Your task to perform on an android device: change text size in settings app Image 0: 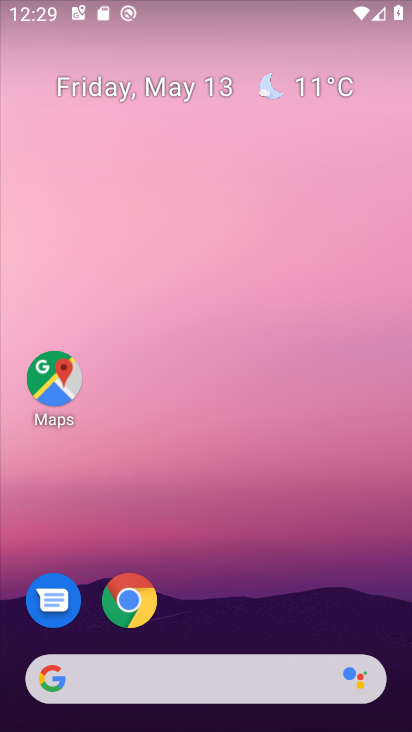
Step 0: drag from (210, 568) to (272, 50)
Your task to perform on an android device: change text size in settings app Image 1: 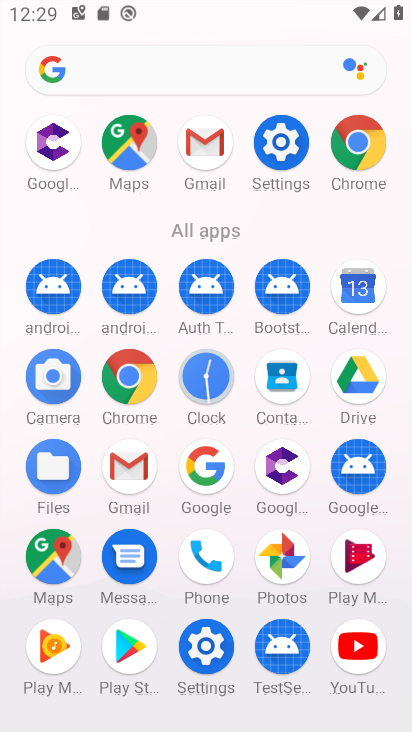
Step 1: click (280, 140)
Your task to perform on an android device: change text size in settings app Image 2: 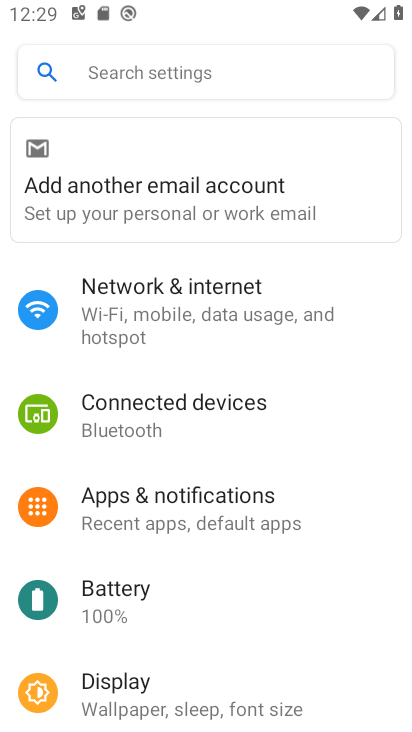
Step 2: click (167, 683)
Your task to perform on an android device: change text size in settings app Image 3: 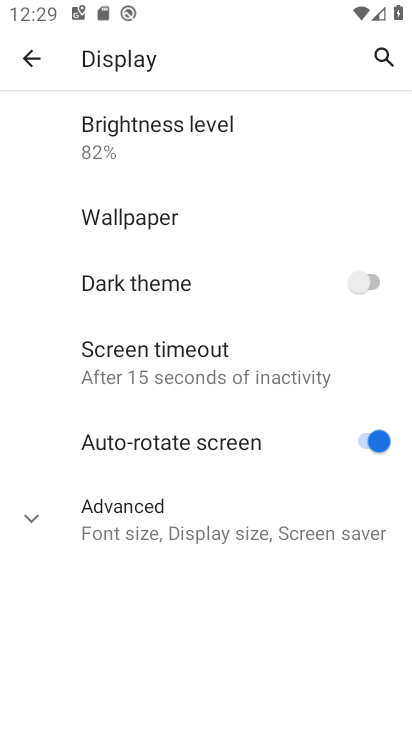
Step 3: click (187, 533)
Your task to perform on an android device: change text size in settings app Image 4: 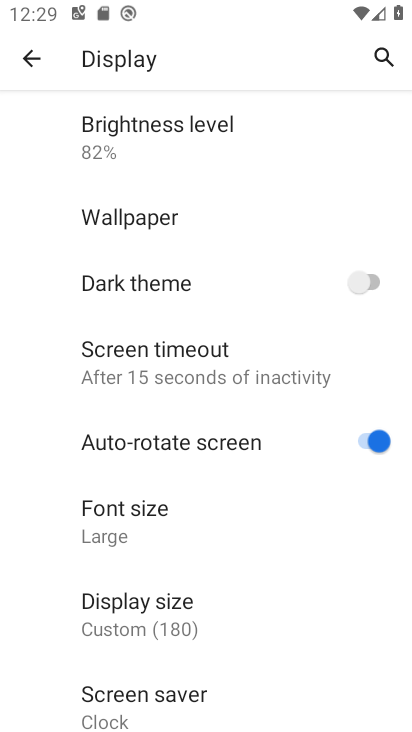
Step 4: click (149, 521)
Your task to perform on an android device: change text size in settings app Image 5: 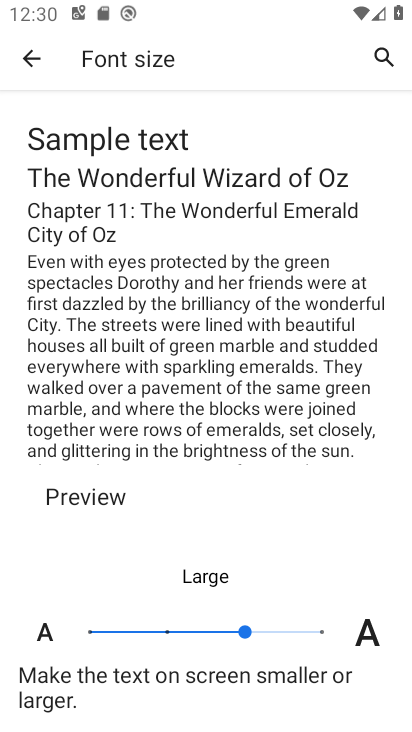
Step 5: click (167, 627)
Your task to perform on an android device: change text size in settings app Image 6: 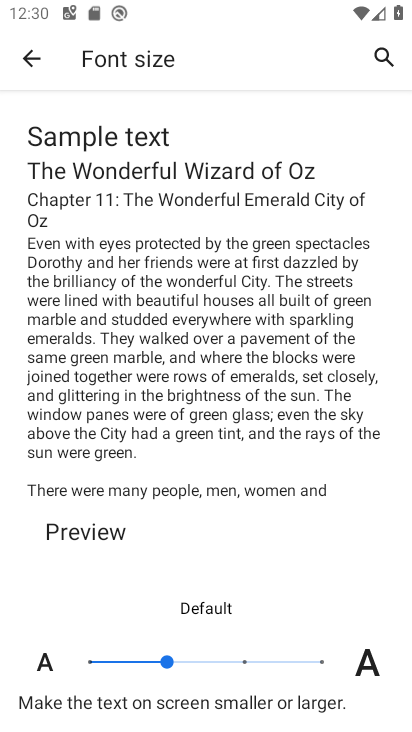
Step 6: task complete